Your task to perform on an android device: star an email in the gmail app Image 0: 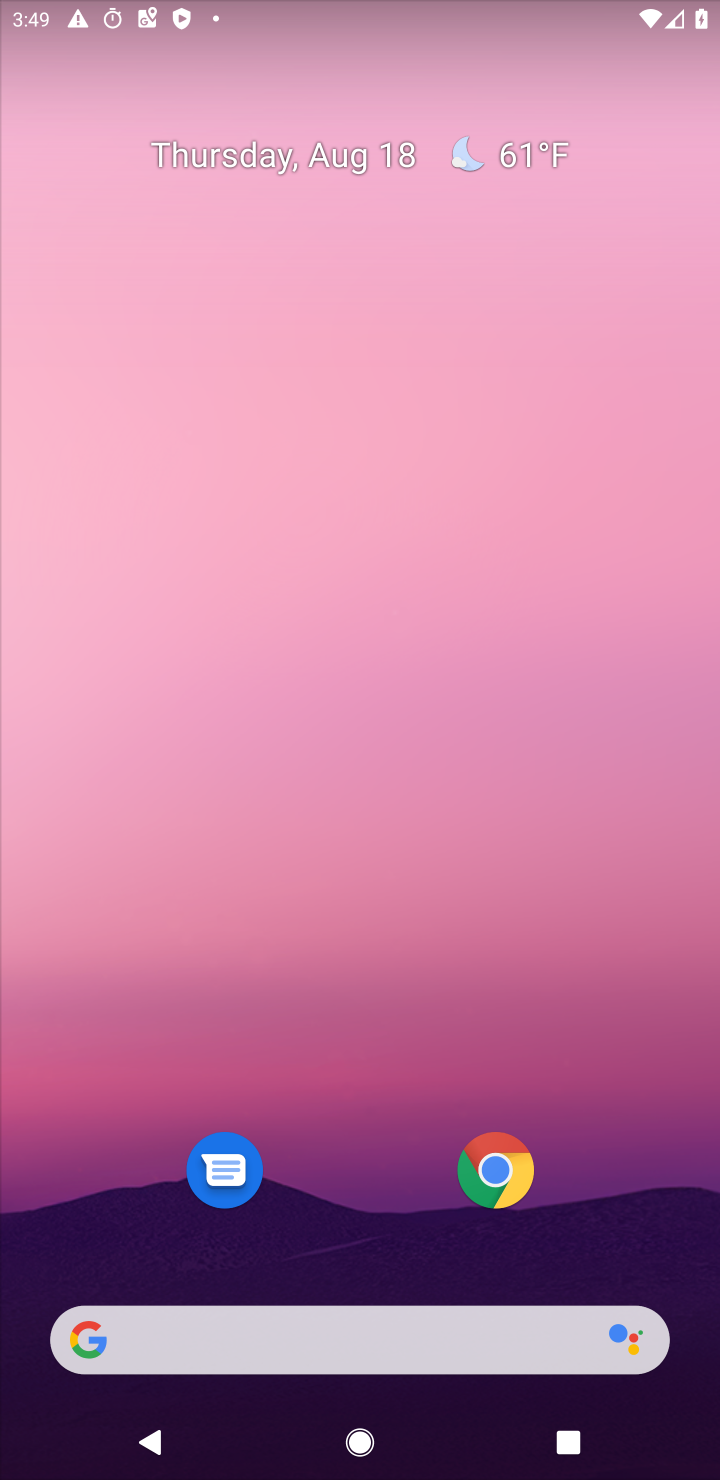
Step 0: drag from (115, 1311) to (342, 280)
Your task to perform on an android device: star an email in the gmail app Image 1: 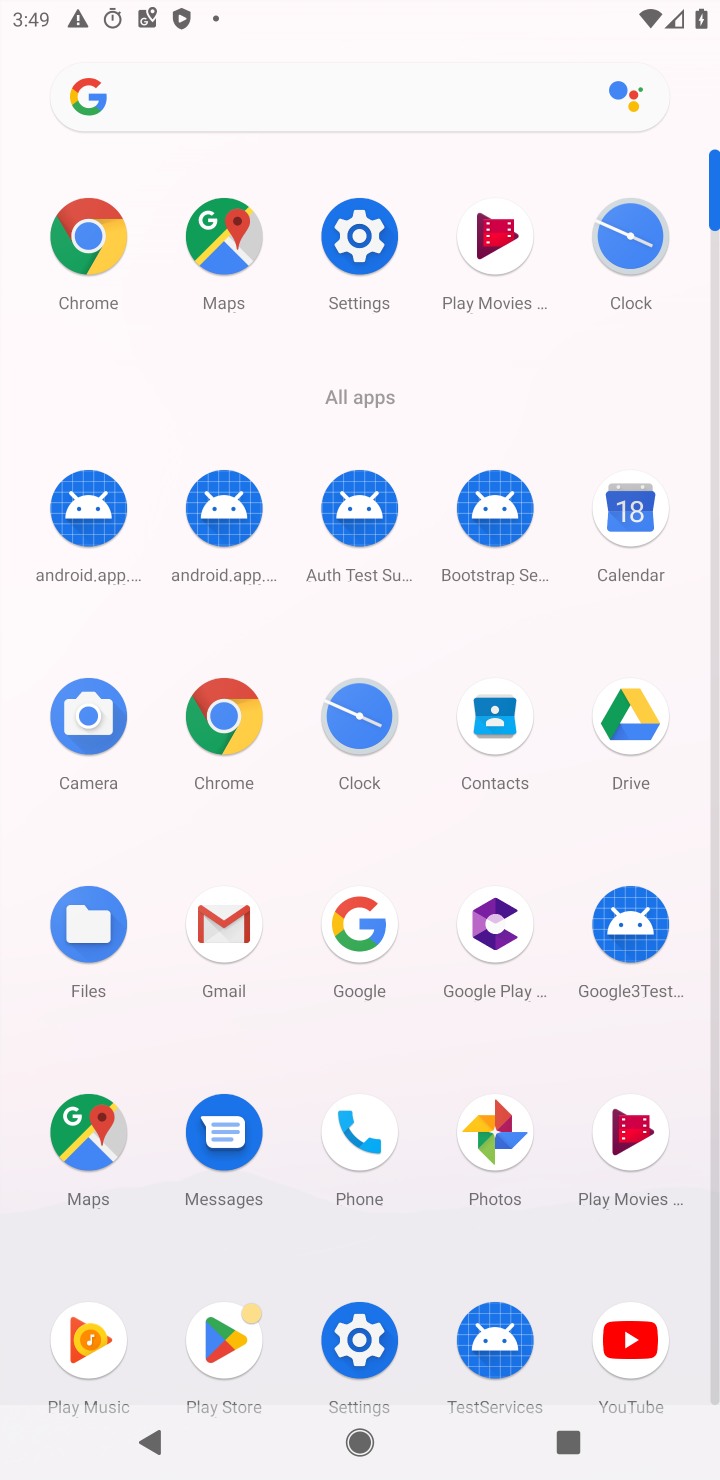
Step 1: click (229, 930)
Your task to perform on an android device: star an email in the gmail app Image 2: 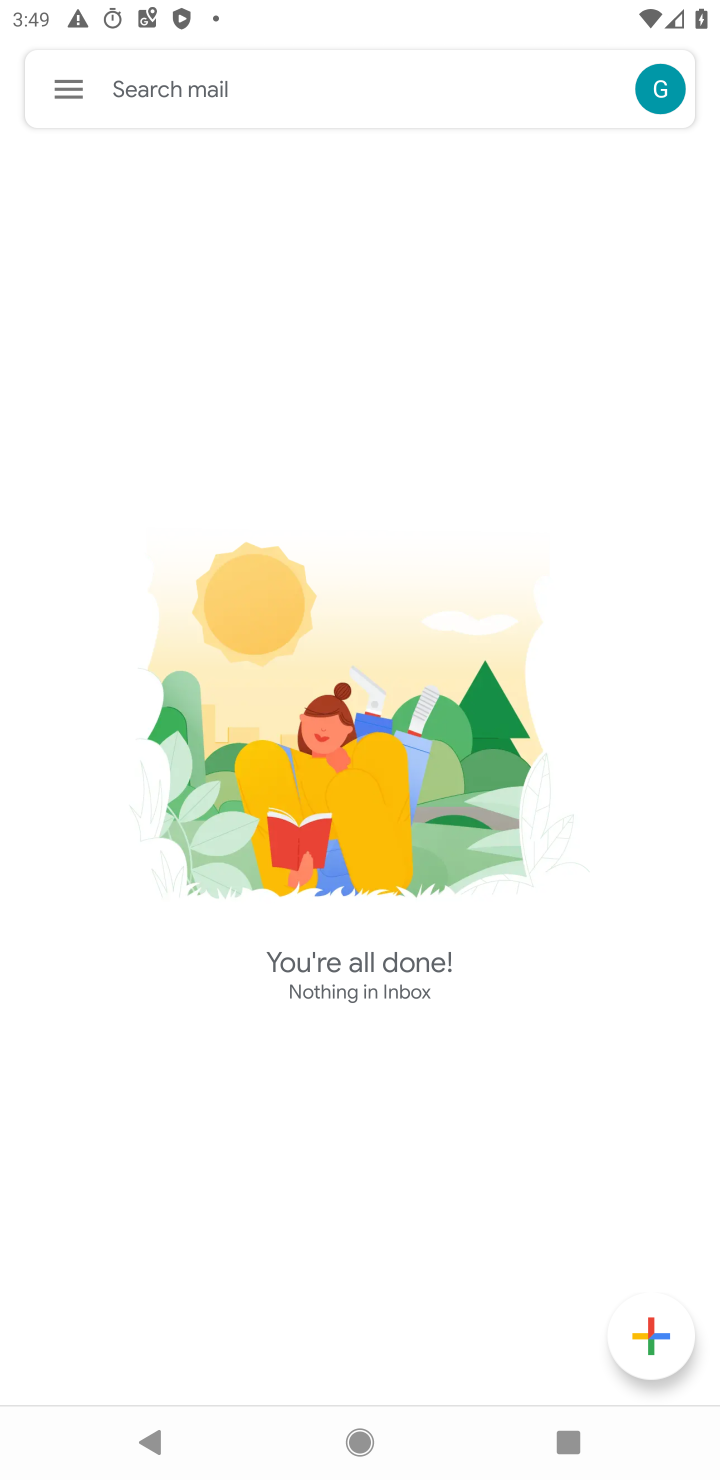
Step 2: click (67, 92)
Your task to perform on an android device: star an email in the gmail app Image 3: 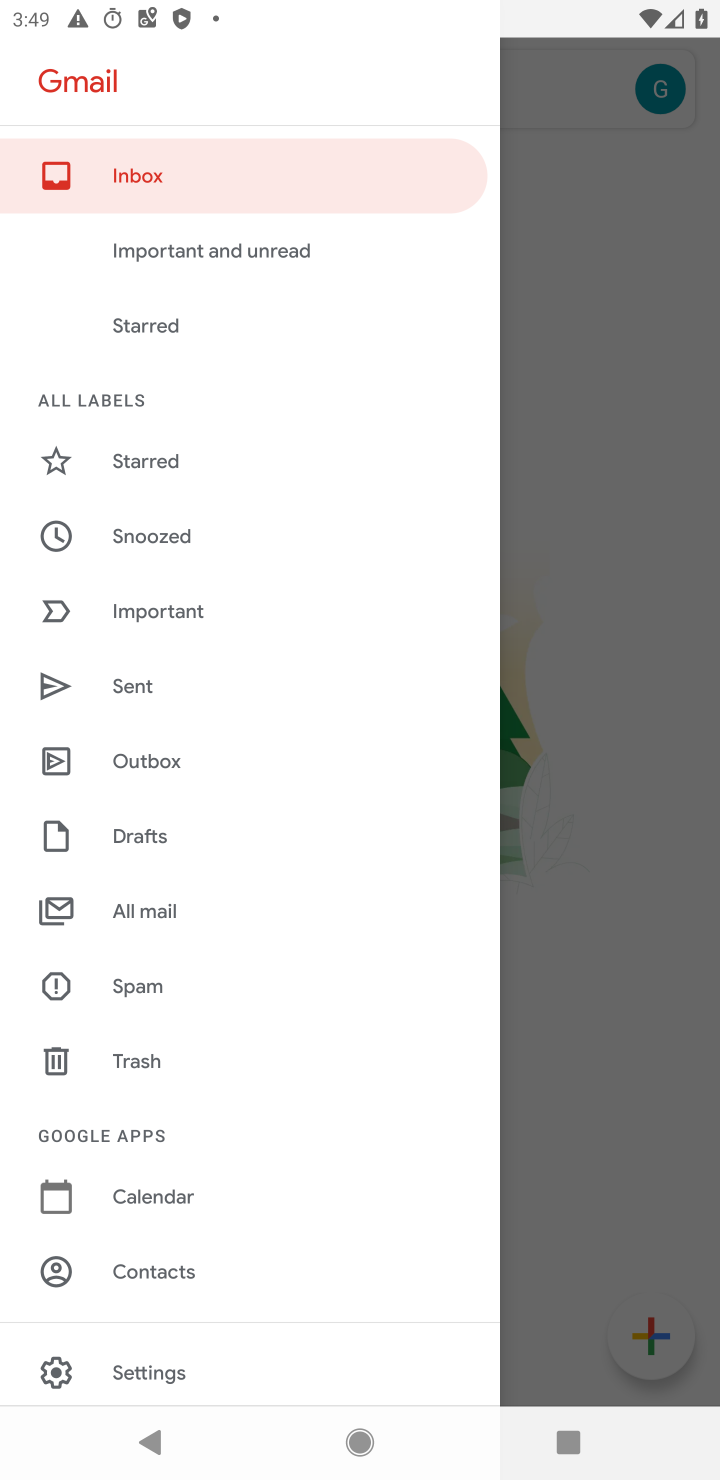
Step 3: click (170, 465)
Your task to perform on an android device: star an email in the gmail app Image 4: 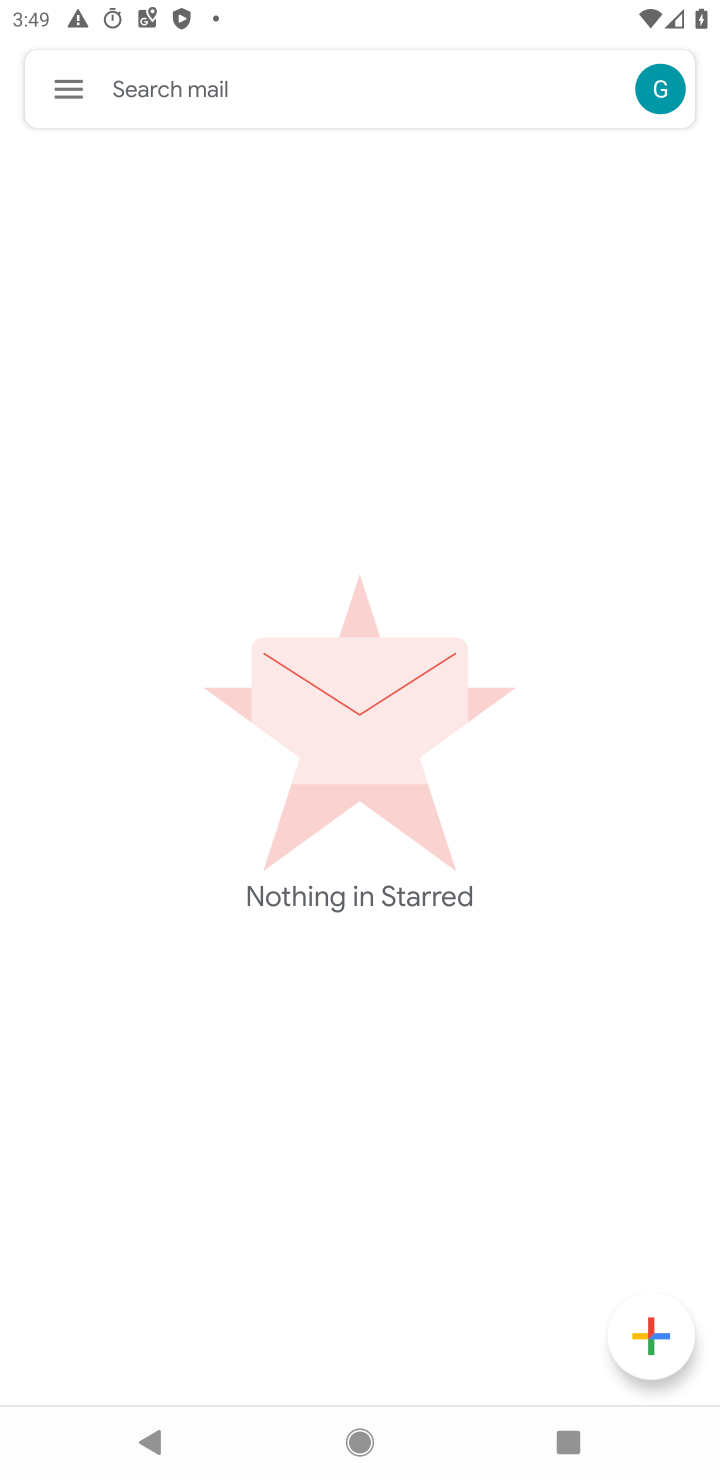
Step 4: task complete